Your task to perform on an android device: What's the weather going to be this weekend? Image 0: 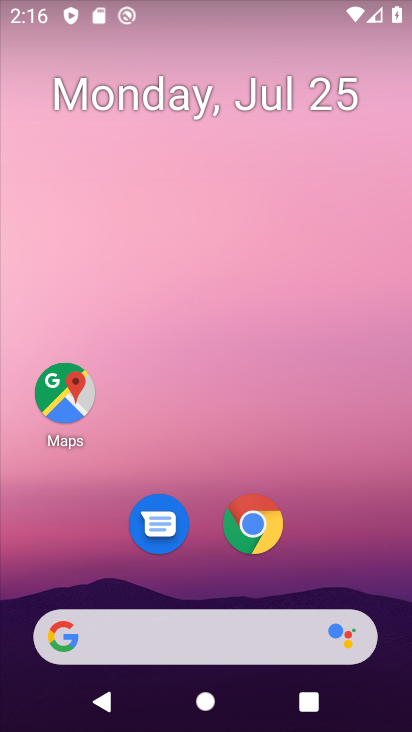
Step 0: press home button
Your task to perform on an android device: What's the weather going to be this weekend? Image 1: 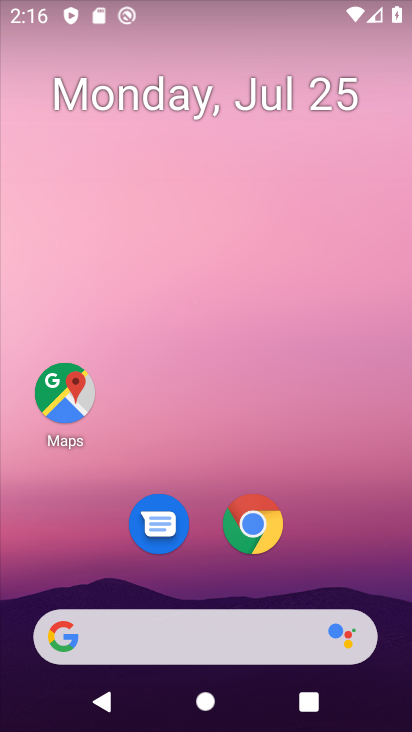
Step 1: click (161, 637)
Your task to perform on an android device: What's the weather going to be this weekend? Image 2: 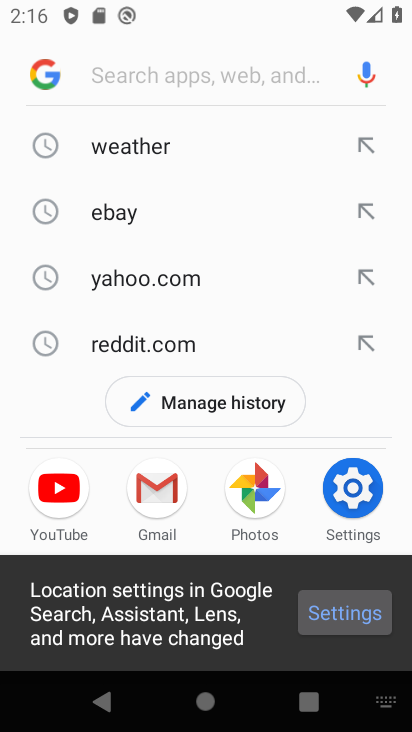
Step 2: click (134, 150)
Your task to perform on an android device: What's the weather going to be this weekend? Image 3: 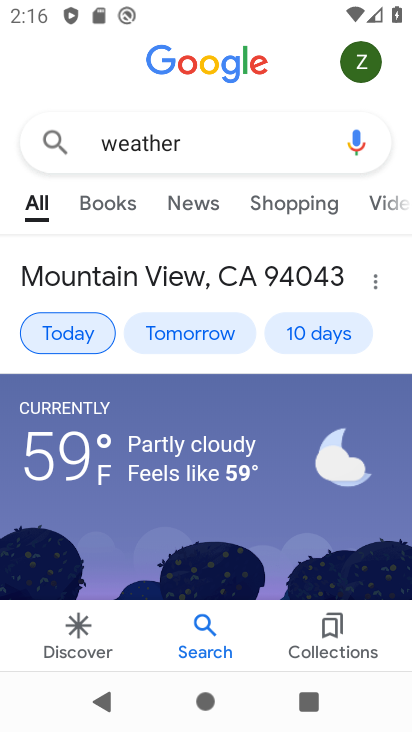
Step 3: click (325, 333)
Your task to perform on an android device: What's the weather going to be this weekend? Image 4: 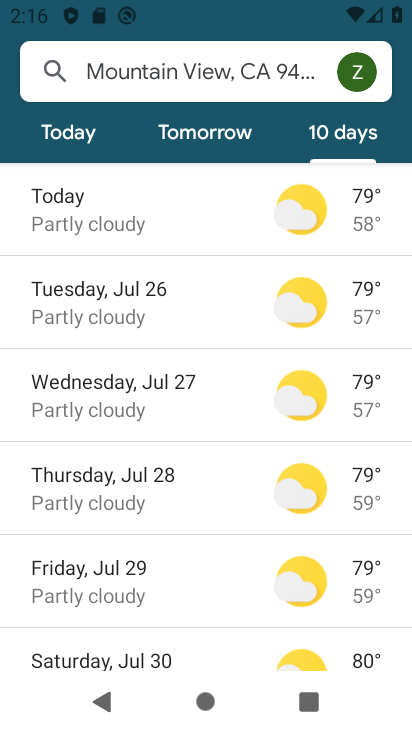
Step 4: drag from (167, 628) to (265, 128)
Your task to perform on an android device: What's the weather going to be this weekend? Image 5: 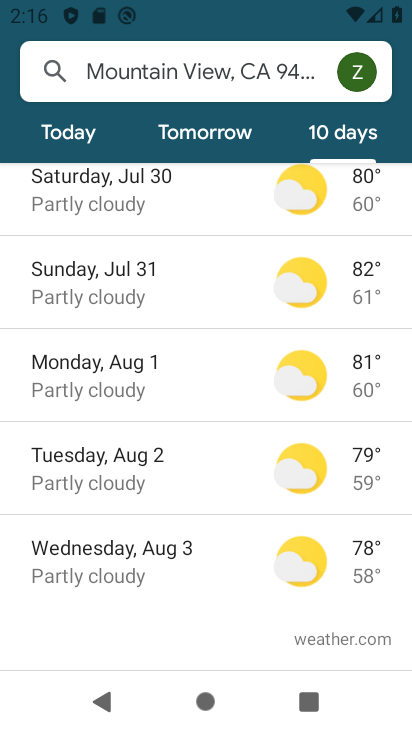
Step 5: click (133, 203)
Your task to perform on an android device: What's the weather going to be this weekend? Image 6: 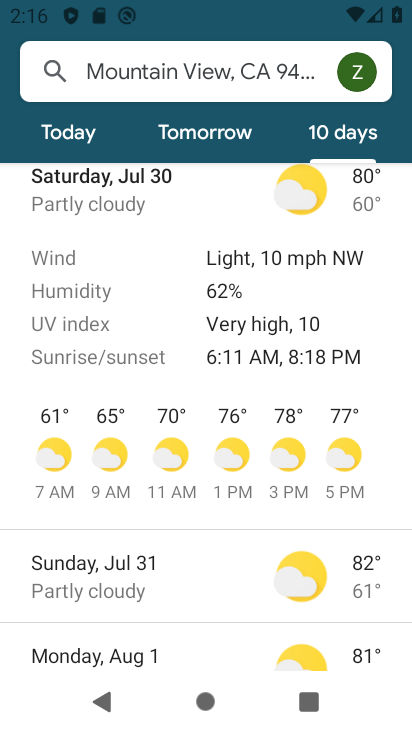
Step 6: task complete